Your task to perform on an android device: Search for top rated pizza restaurants on Maps Image 0: 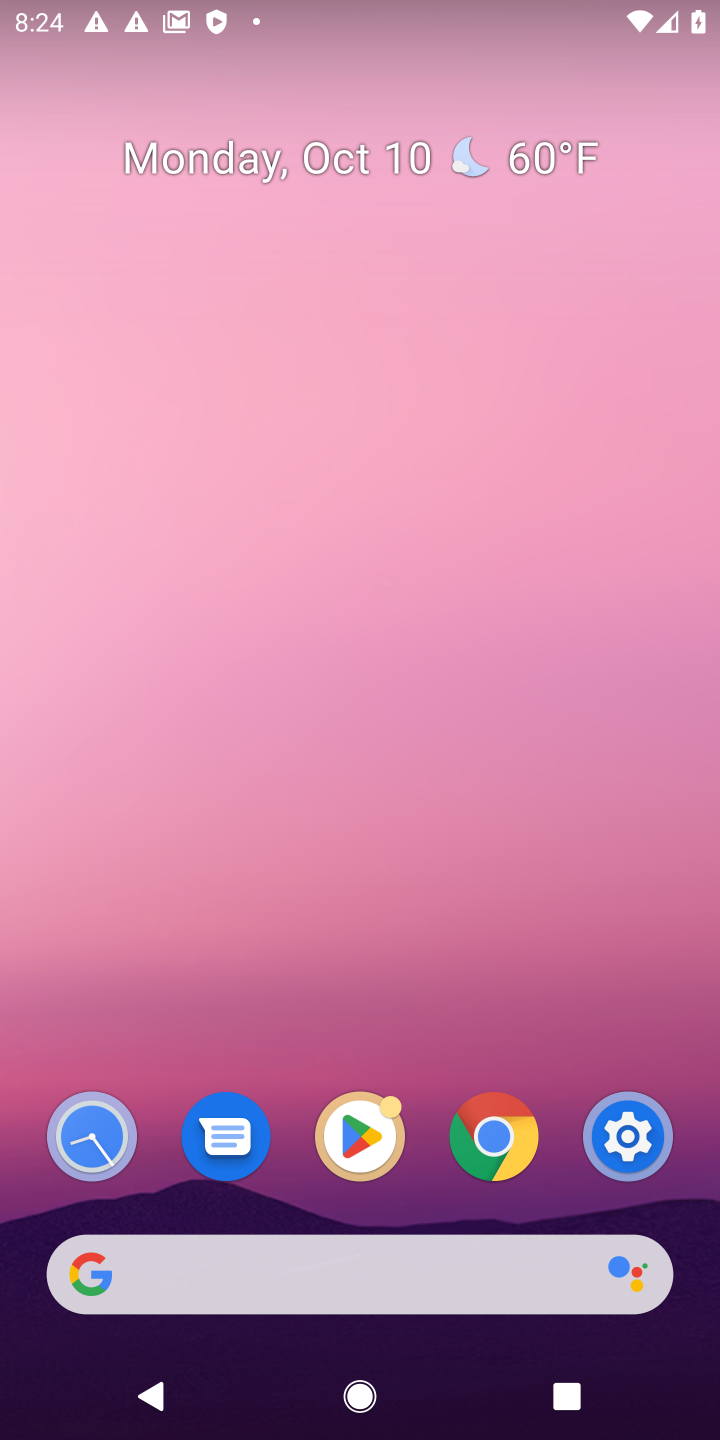
Step 0: drag from (456, 1013) to (316, 286)
Your task to perform on an android device: Search for top rated pizza restaurants on Maps Image 1: 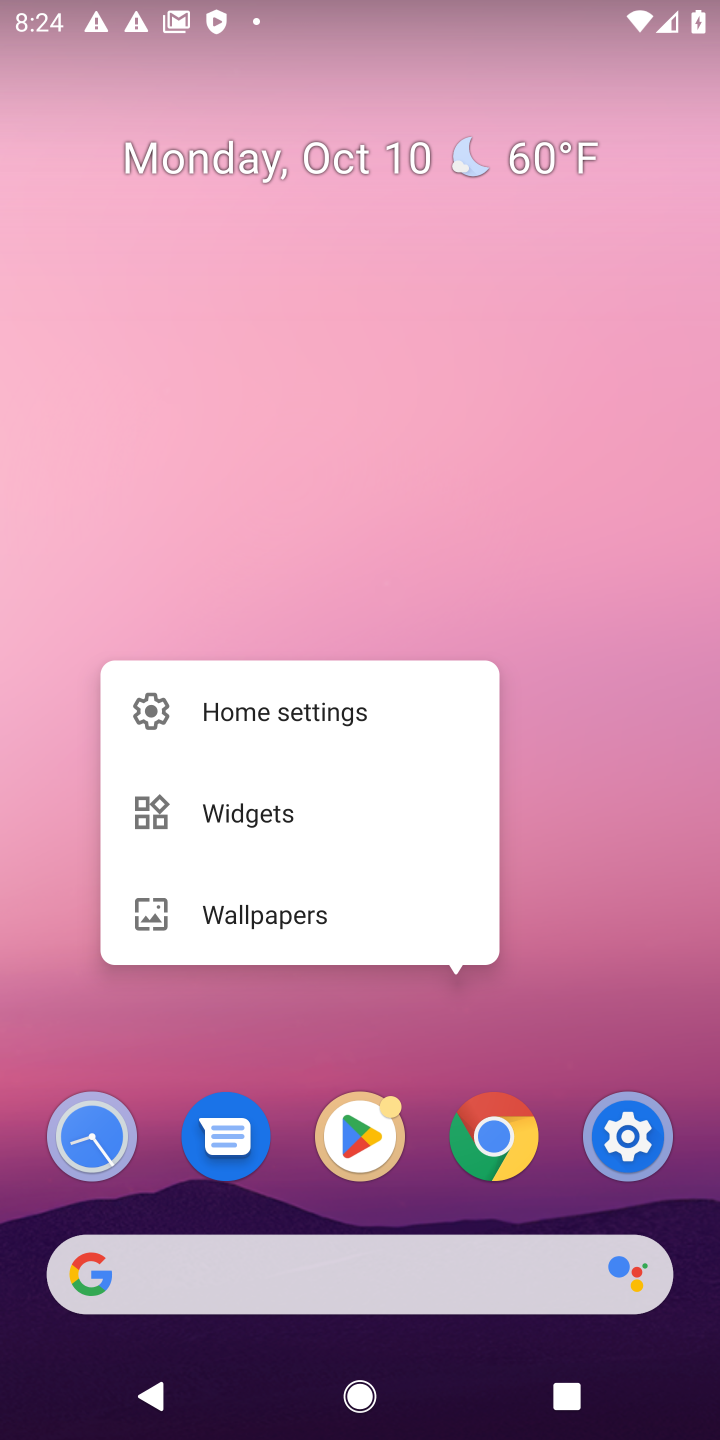
Step 1: click (556, 931)
Your task to perform on an android device: Search for top rated pizza restaurants on Maps Image 2: 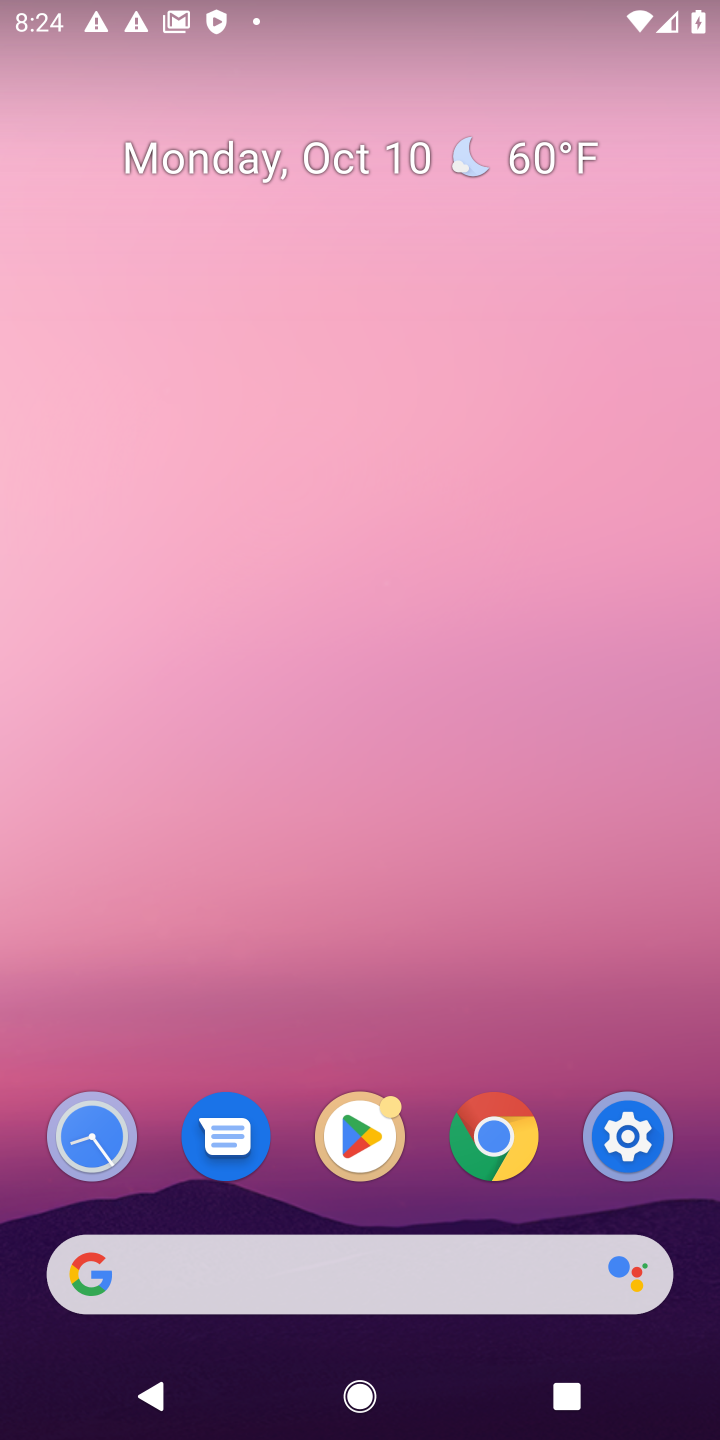
Step 2: drag from (334, 1036) to (302, 280)
Your task to perform on an android device: Search for top rated pizza restaurants on Maps Image 3: 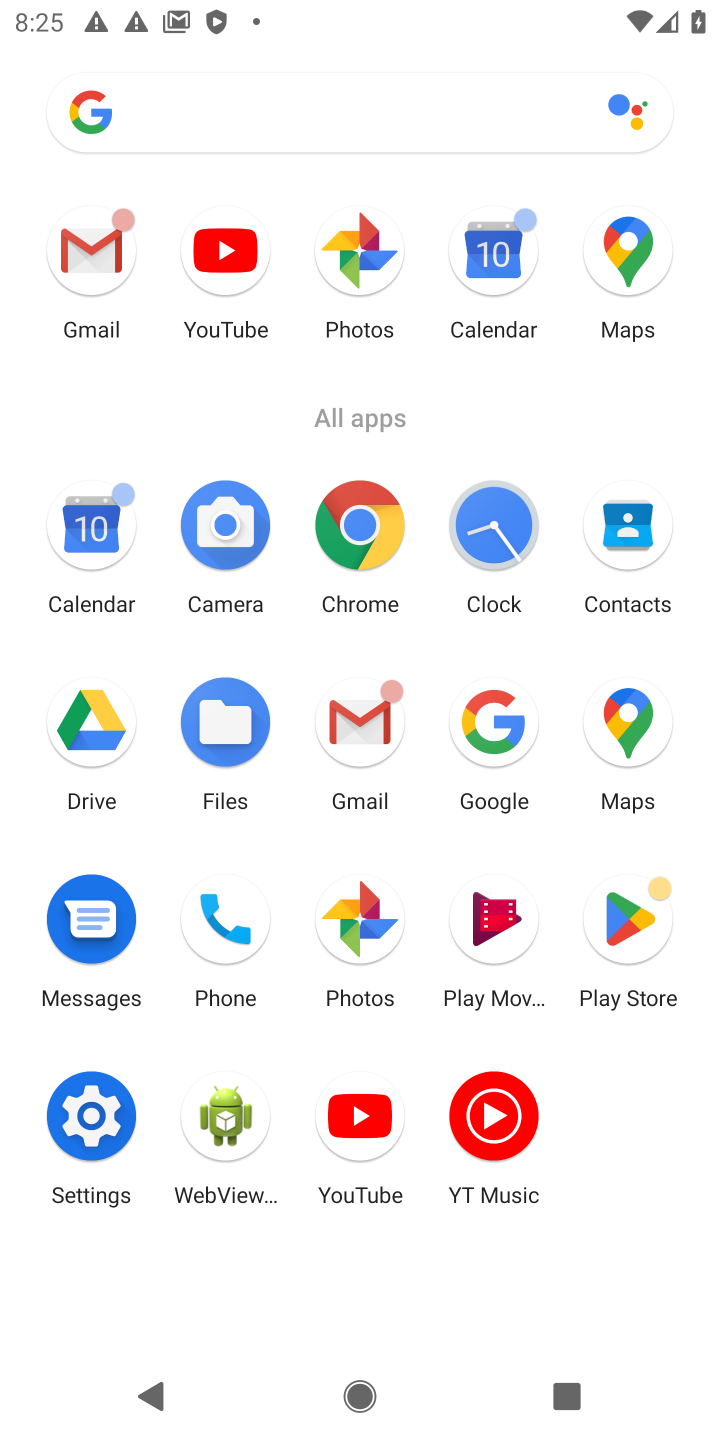
Step 3: click (614, 238)
Your task to perform on an android device: Search for top rated pizza restaurants on Maps Image 4: 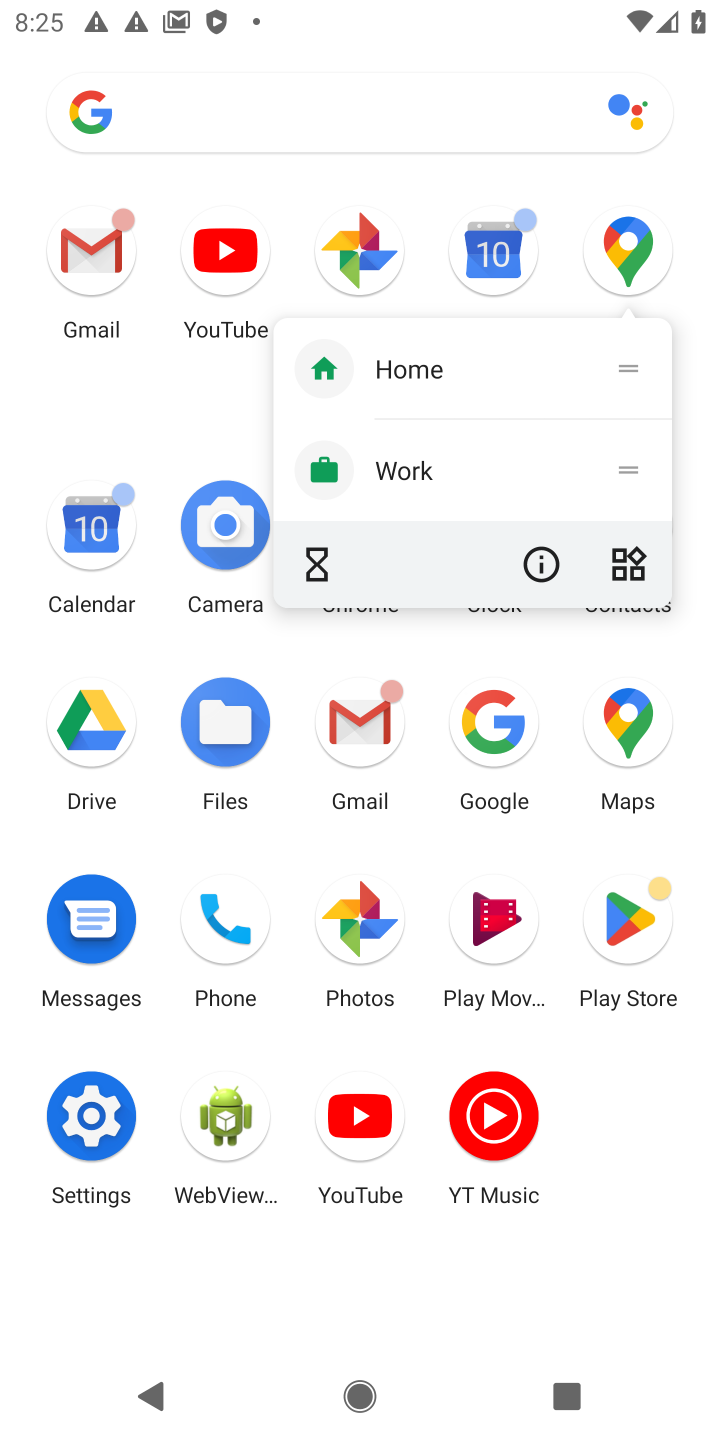
Step 4: click (633, 242)
Your task to perform on an android device: Search for top rated pizza restaurants on Maps Image 5: 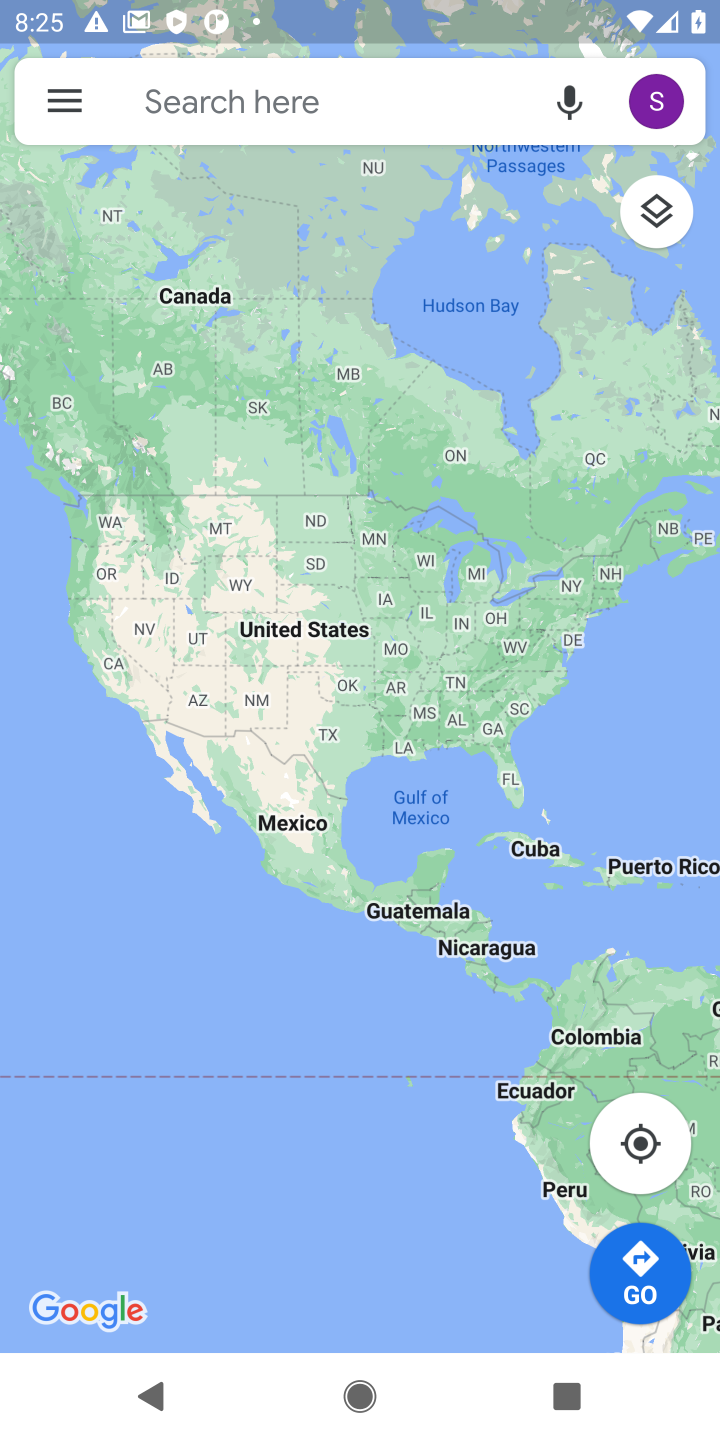
Step 5: click (162, 107)
Your task to perform on an android device: Search for top rated pizza restaurants on Maps Image 6: 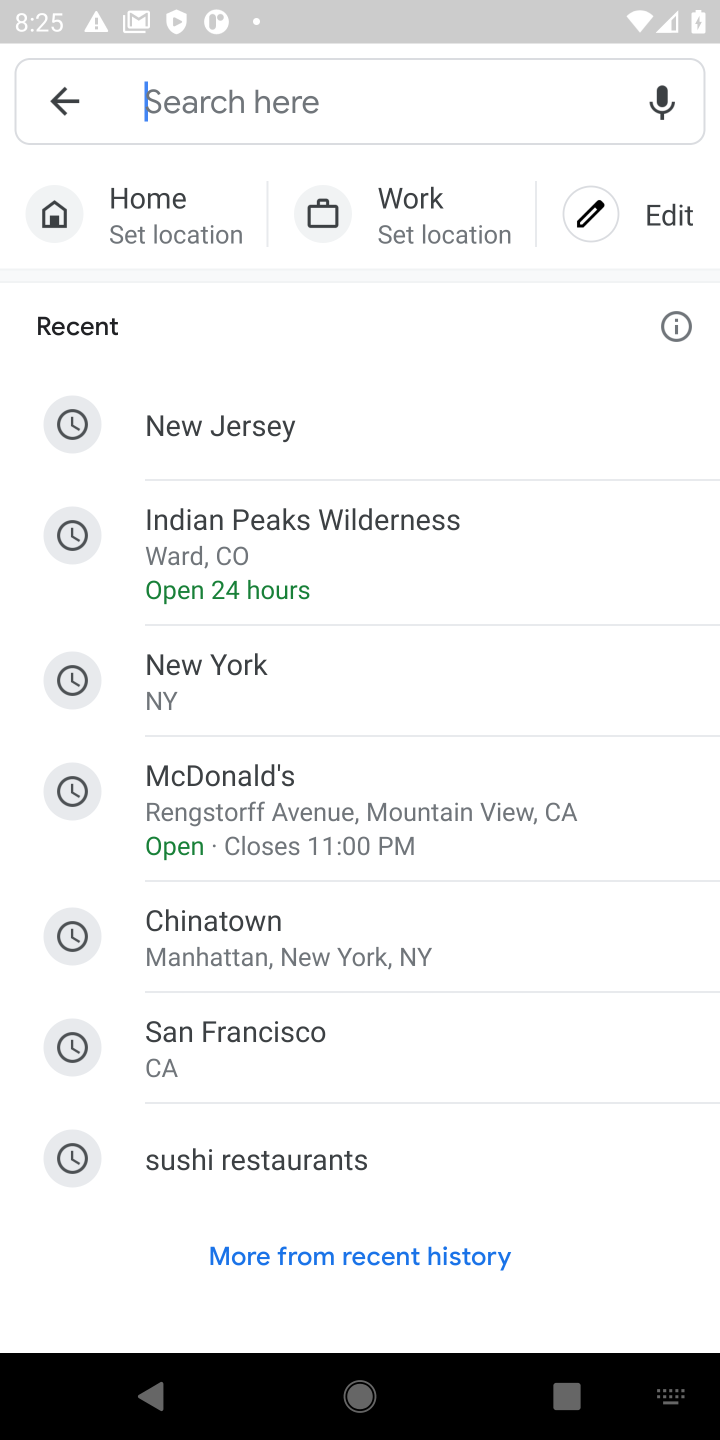
Step 6: type "top rated pizza restaurants"
Your task to perform on an android device: Search for top rated pizza restaurants on Maps Image 7: 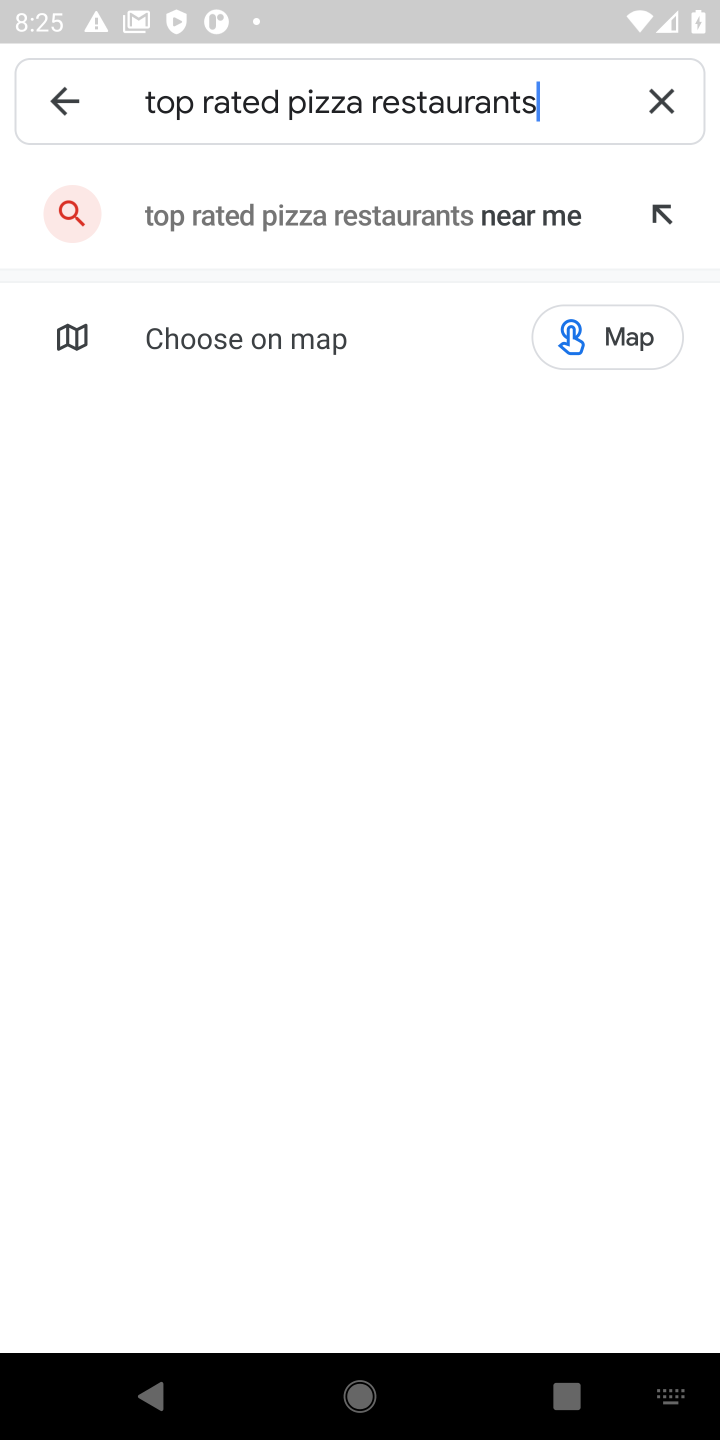
Step 7: click (239, 215)
Your task to perform on an android device: Search for top rated pizza restaurants on Maps Image 8: 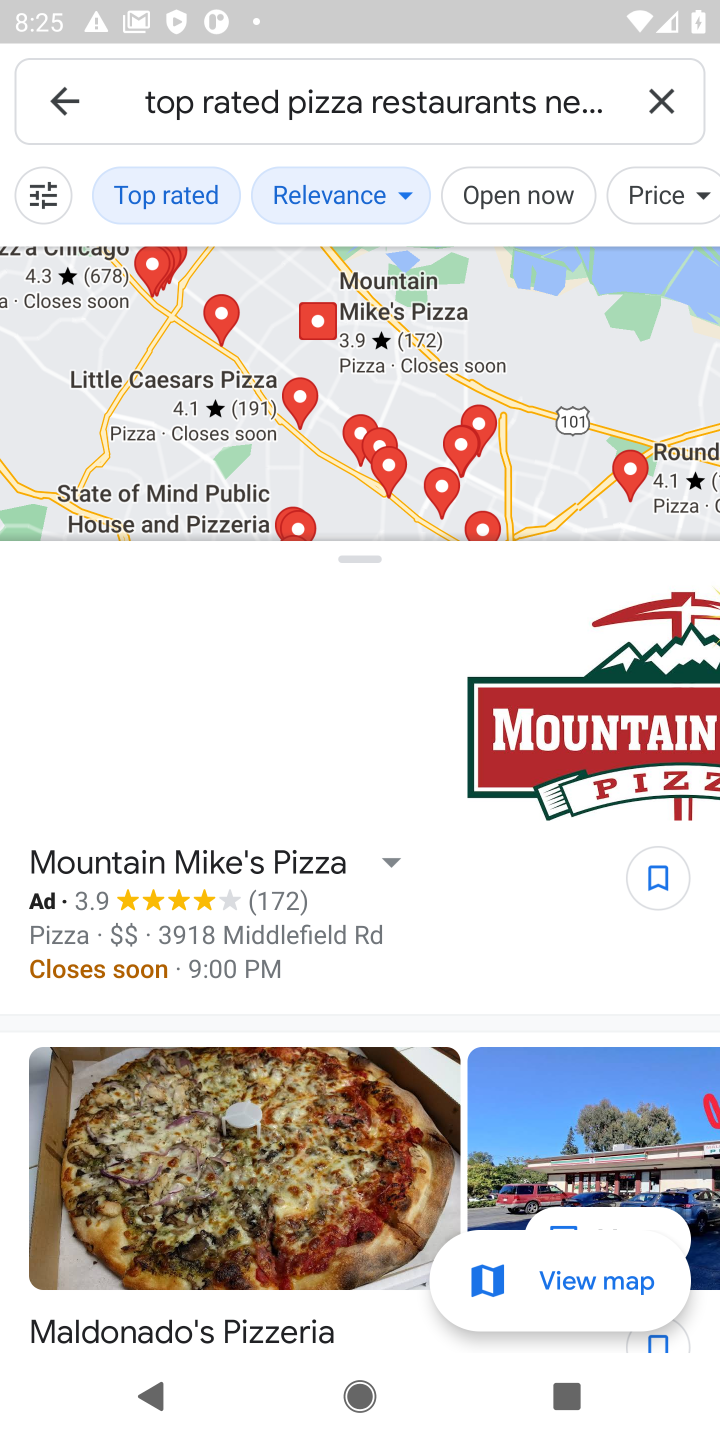
Step 8: task complete